Your task to perform on an android device: Go to accessibility settings Image 0: 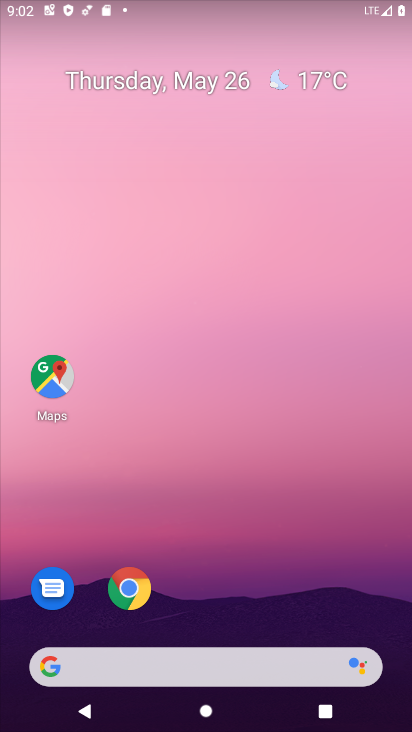
Step 0: drag from (358, 612) to (325, 0)
Your task to perform on an android device: Go to accessibility settings Image 1: 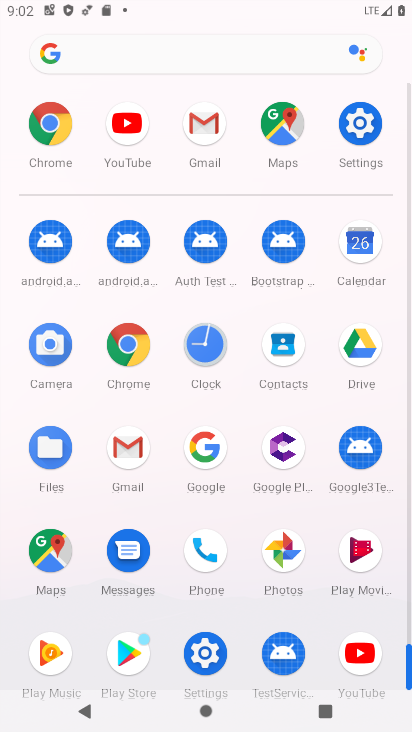
Step 1: click (205, 651)
Your task to perform on an android device: Go to accessibility settings Image 2: 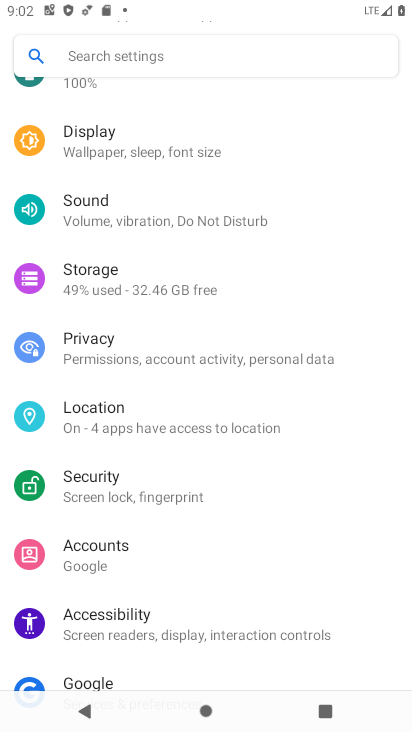
Step 2: click (99, 612)
Your task to perform on an android device: Go to accessibility settings Image 3: 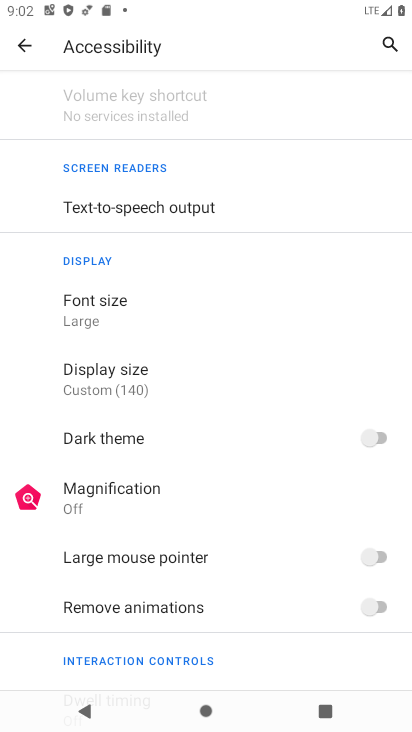
Step 3: task complete